Your task to perform on an android device: Search for Mexican restaurants on Maps Image 0: 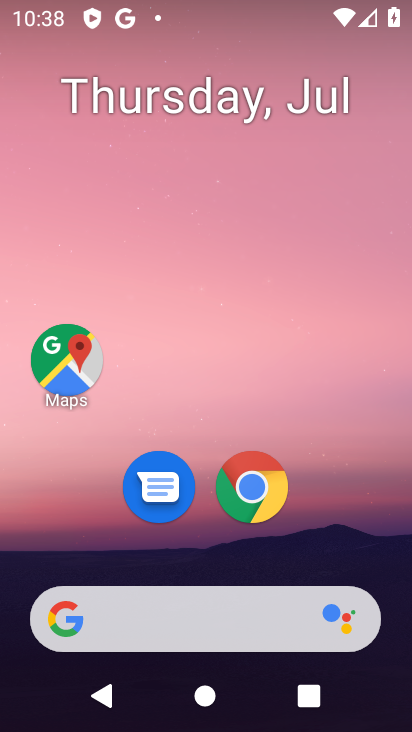
Step 0: click (70, 367)
Your task to perform on an android device: Search for Mexican restaurants on Maps Image 1: 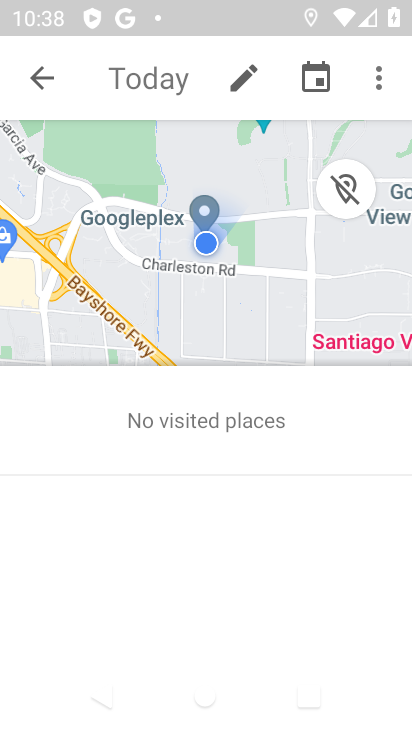
Step 1: click (49, 68)
Your task to perform on an android device: Search for Mexican restaurants on Maps Image 2: 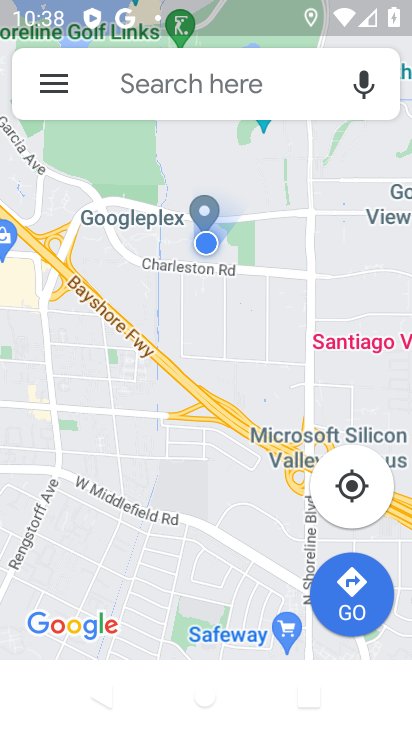
Step 2: click (188, 86)
Your task to perform on an android device: Search for Mexican restaurants on Maps Image 3: 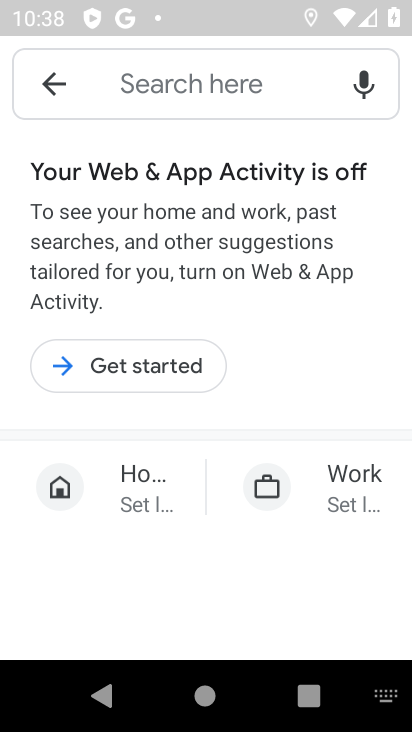
Step 3: type "mexican restaurants"
Your task to perform on an android device: Search for Mexican restaurants on Maps Image 4: 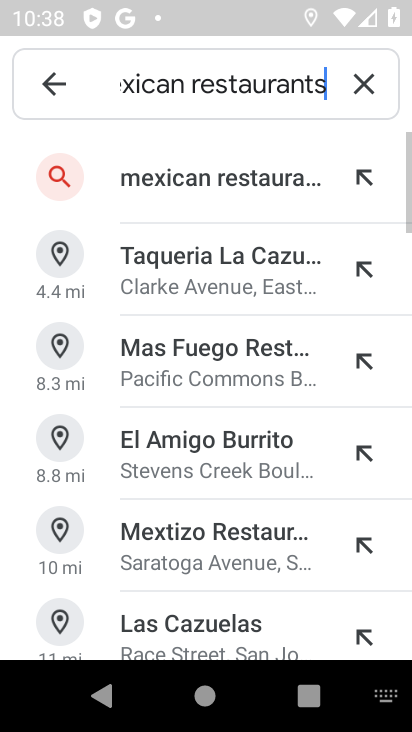
Step 4: click (188, 174)
Your task to perform on an android device: Search for Mexican restaurants on Maps Image 5: 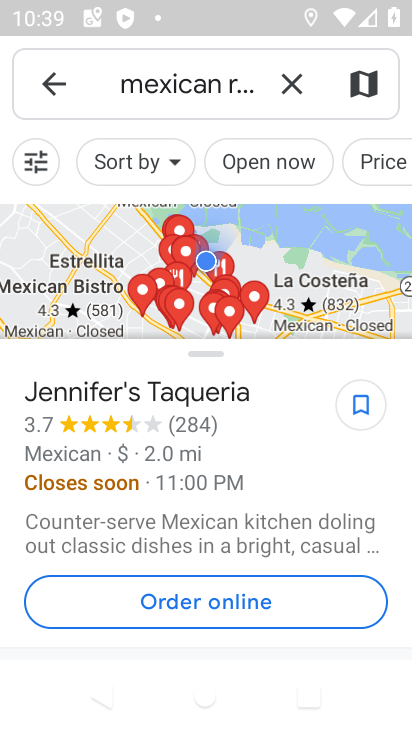
Step 5: task complete